Your task to perform on an android device: turn off wifi Image 0: 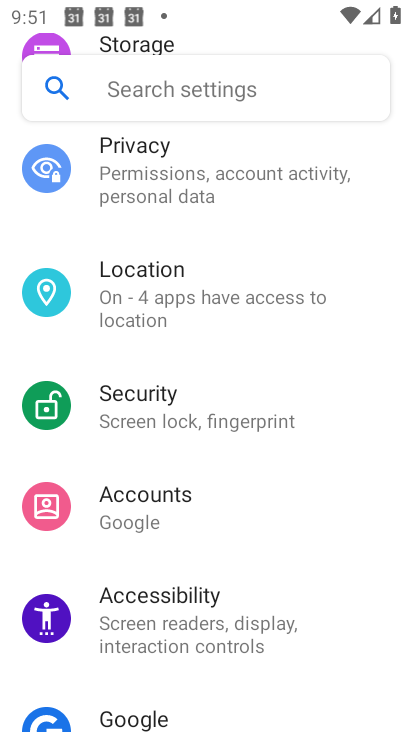
Step 0: drag from (316, 268) to (285, 640)
Your task to perform on an android device: turn off wifi Image 1: 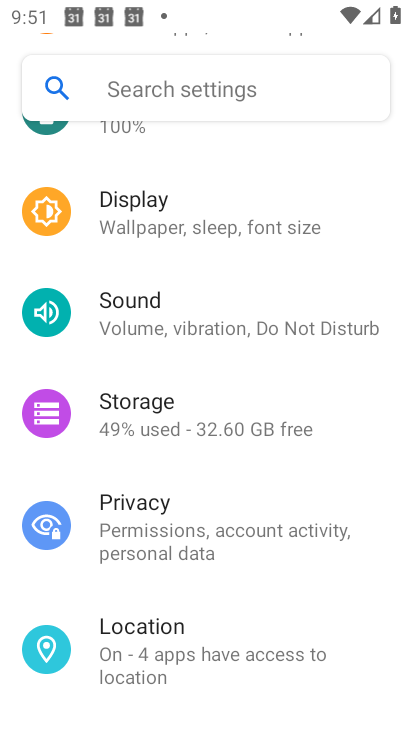
Step 1: drag from (204, 315) to (196, 613)
Your task to perform on an android device: turn off wifi Image 2: 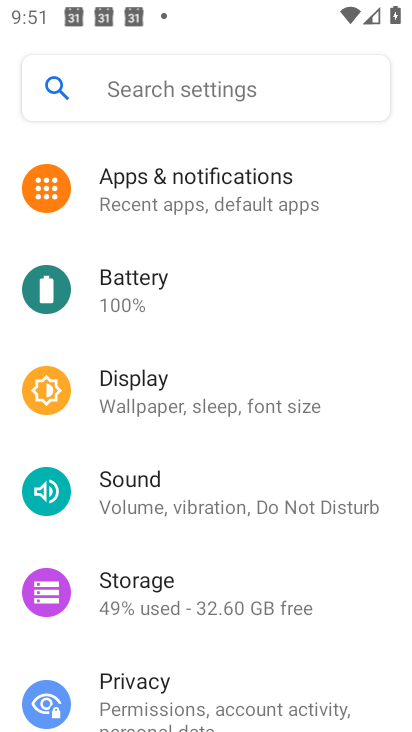
Step 2: drag from (198, 307) to (201, 649)
Your task to perform on an android device: turn off wifi Image 3: 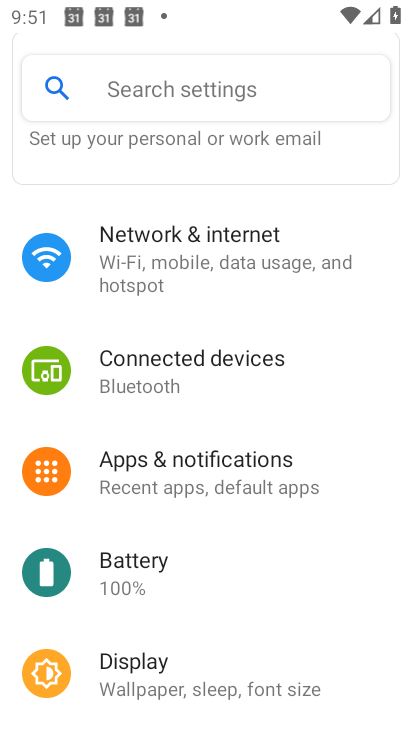
Step 3: click (235, 270)
Your task to perform on an android device: turn off wifi Image 4: 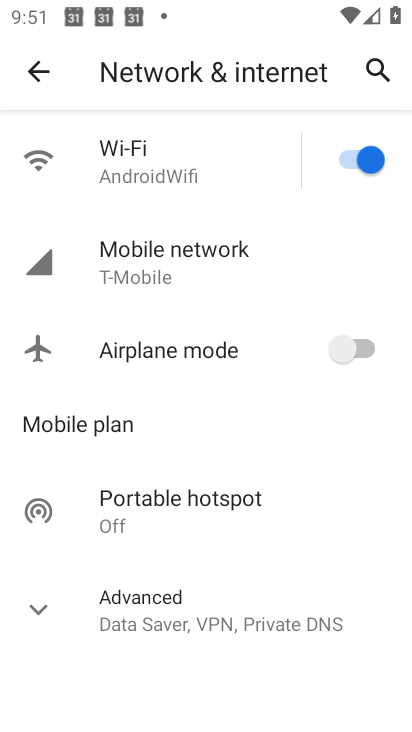
Step 4: click (178, 172)
Your task to perform on an android device: turn off wifi Image 5: 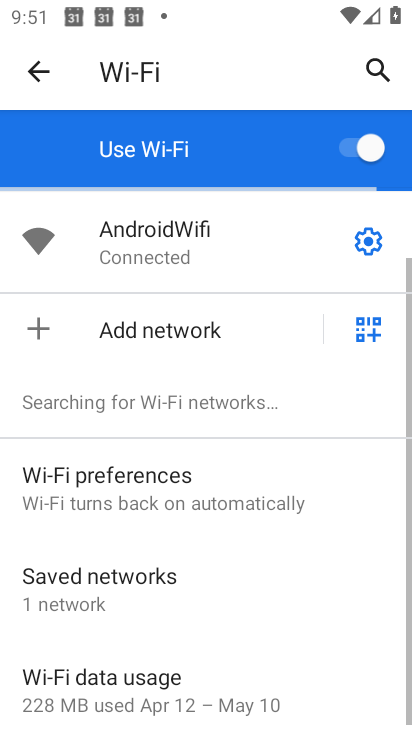
Step 5: click (362, 153)
Your task to perform on an android device: turn off wifi Image 6: 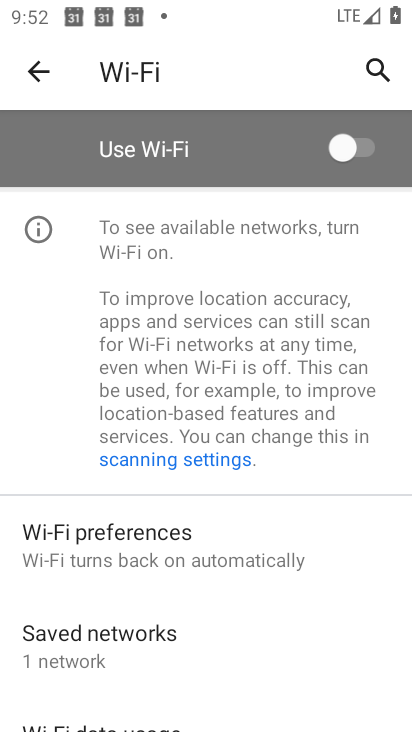
Step 6: task complete